Your task to perform on an android device: Go to network settings Image 0: 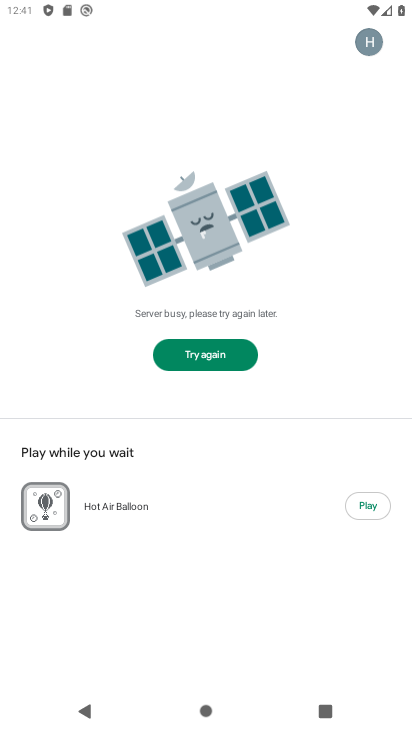
Step 0: press home button
Your task to perform on an android device: Go to network settings Image 1: 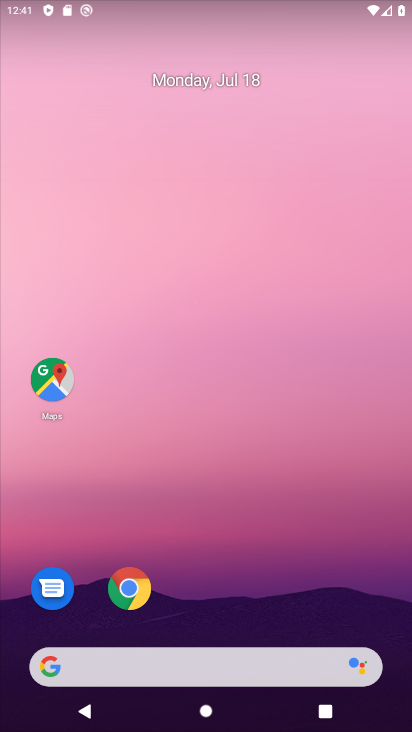
Step 1: drag from (212, 654) to (198, 302)
Your task to perform on an android device: Go to network settings Image 2: 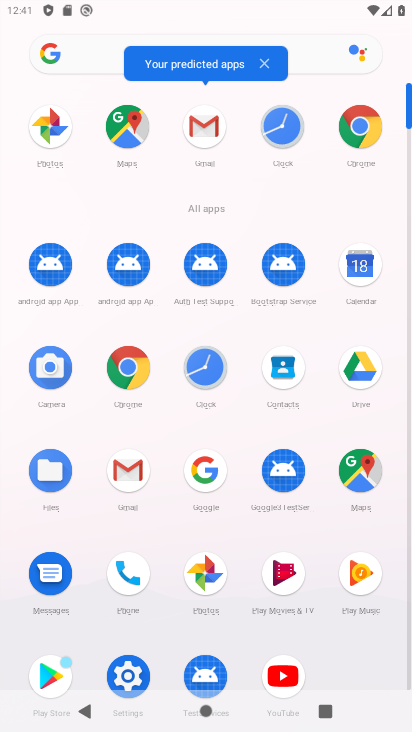
Step 2: click (122, 664)
Your task to perform on an android device: Go to network settings Image 3: 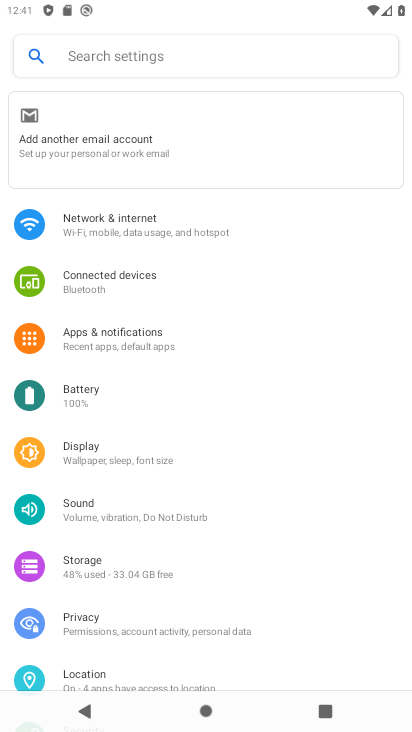
Step 3: click (130, 234)
Your task to perform on an android device: Go to network settings Image 4: 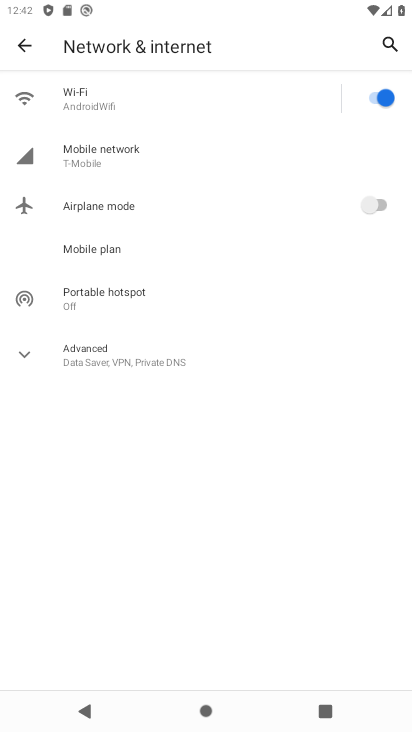
Step 4: task complete